Your task to perform on an android device: Go to Google Image 0: 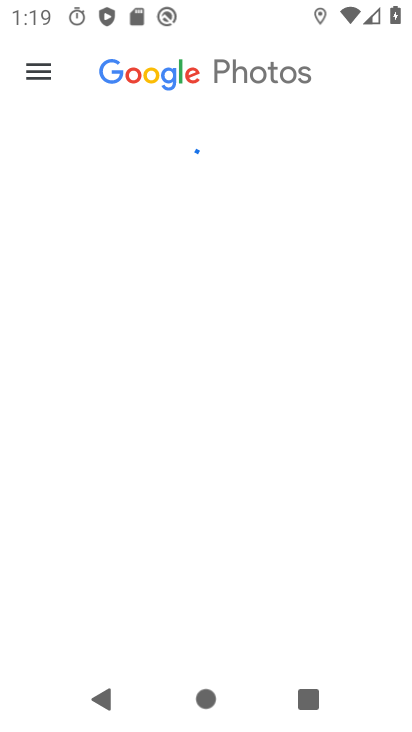
Step 0: press home button
Your task to perform on an android device: Go to Google Image 1: 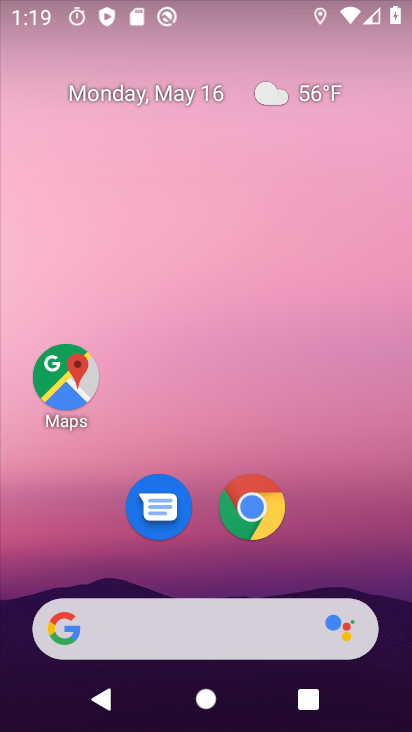
Step 1: drag from (191, 446) to (196, 79)
Your task to perform on an android device: Go to Google Image 2: 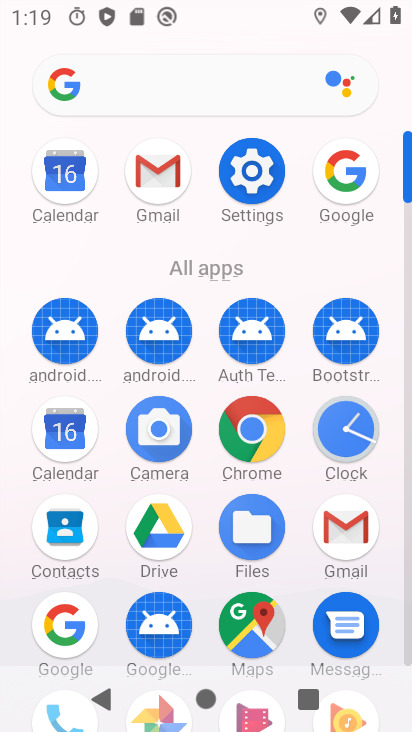
Step 2: click (342, 172)
Your task to perform on an android device: Go to Google Image 3: 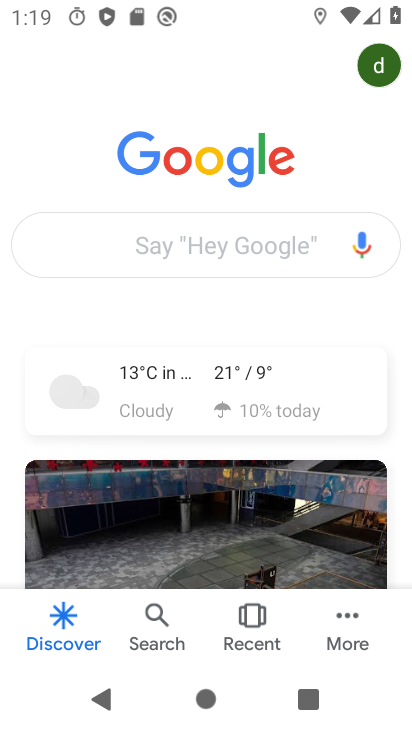
Step 3: task complete